Your task to perform on an android device: turn smart compose on in the gmail app Image 0: 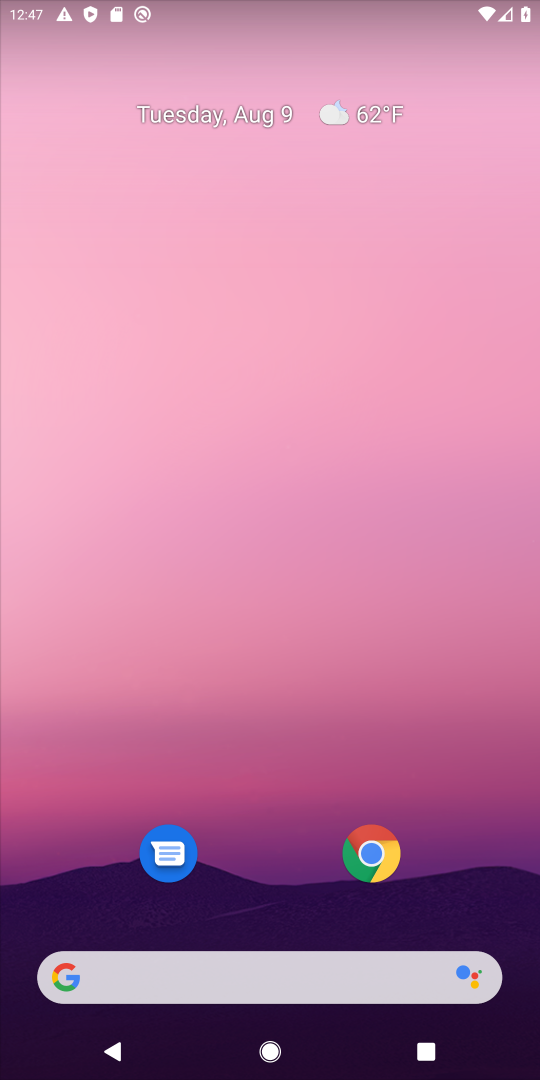
Step 0: drag from (219, 606) to (241, 51)
Your task to perform on an android device: turn smart compose on in the gmail app Image 1: 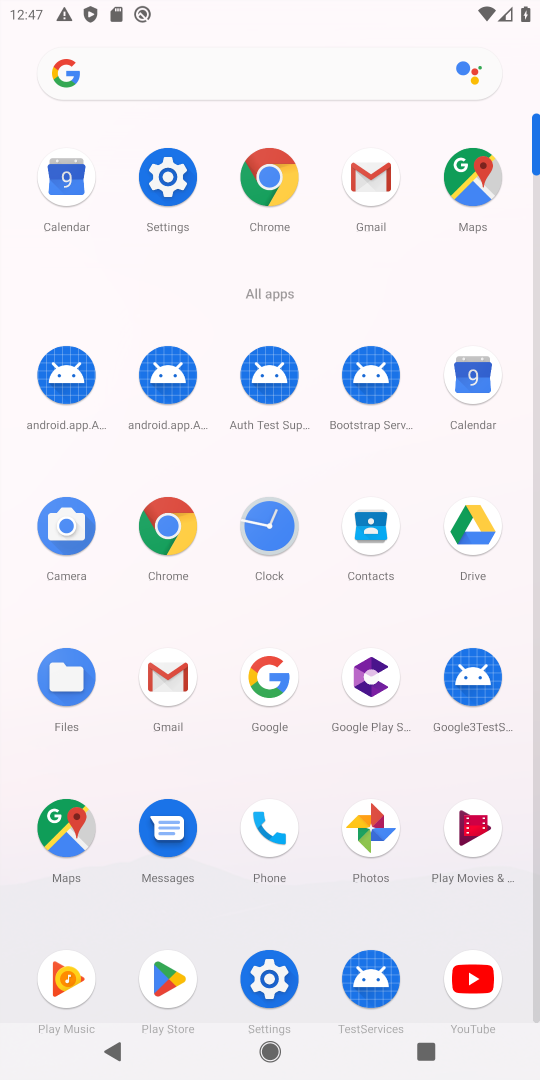
Step 1: click (382, 189)
Your task to perform on an android device: turn smart compose on in the gmail app Image 2: 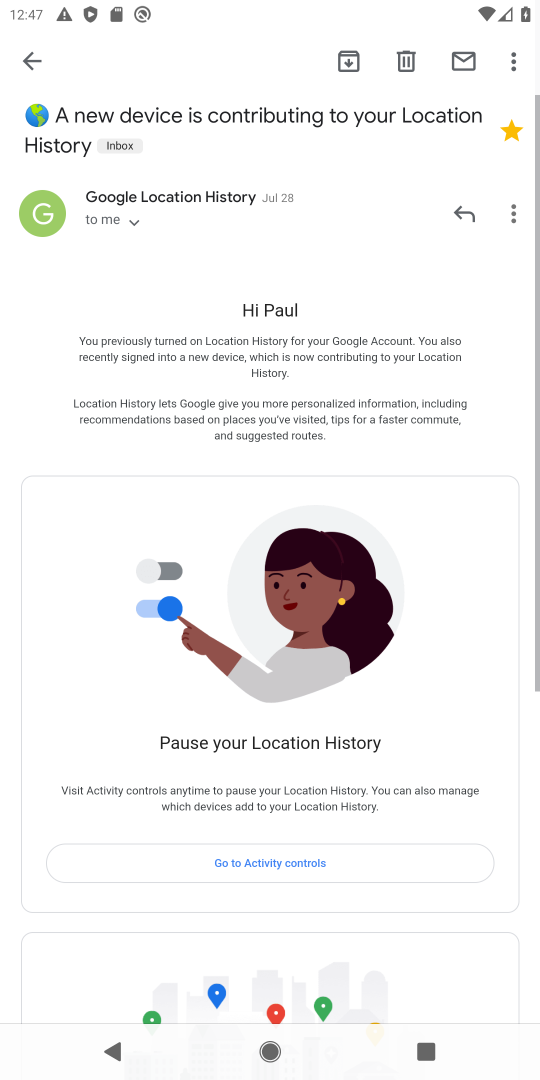
Step 2: click (32, 64)
Your task to perform on an android device: turn smart compose on in the gmail app Image 3: 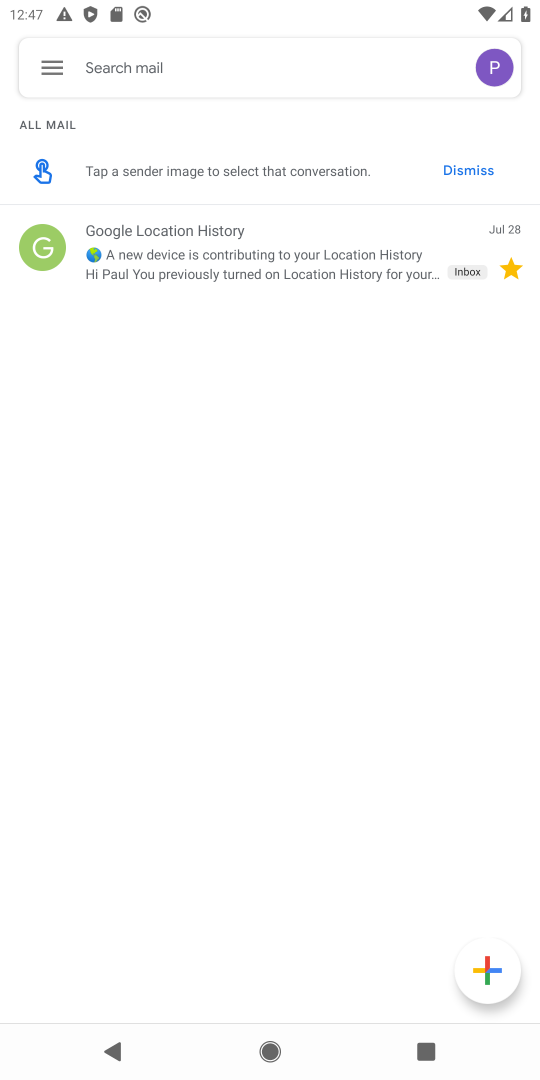
Step 3: click (32, 63)
Your task to perform on an android device: turn smart compose on in the gmail app Image 4: 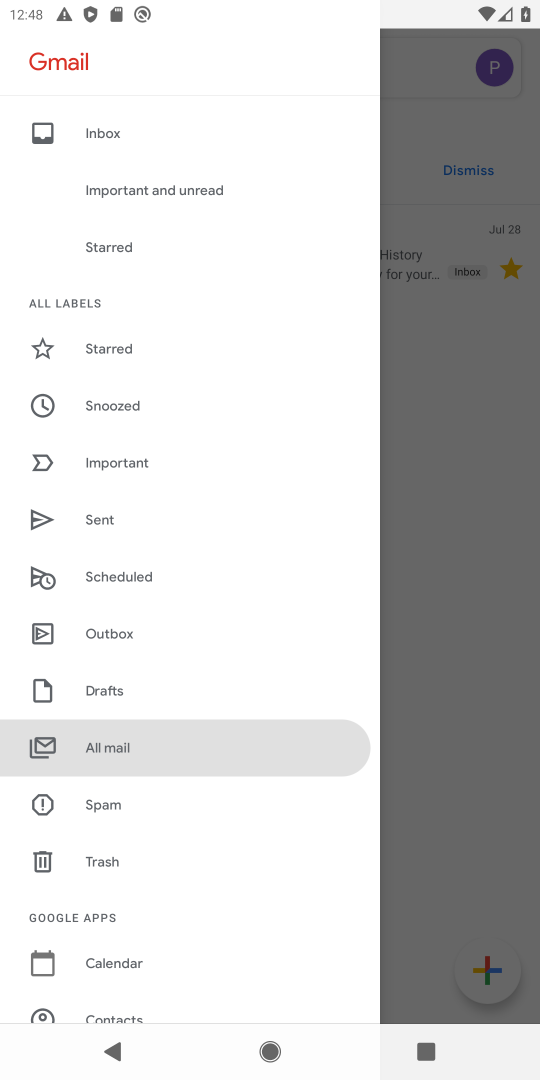
Step 4: drag from (169, 916) to (204, 383)
Your task to perform on an android device: turn smart compose on in the gmail app Image 5: 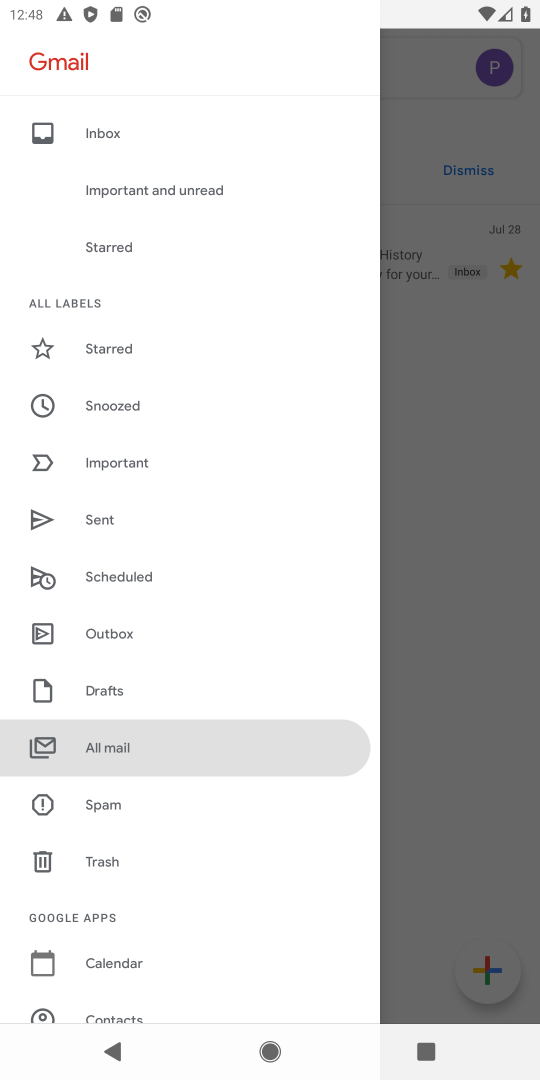
Step 5: drag from (230, 915) to (215, 294)
Your task to perform on an android device: turn smart compose on in the gmail app Image 6: 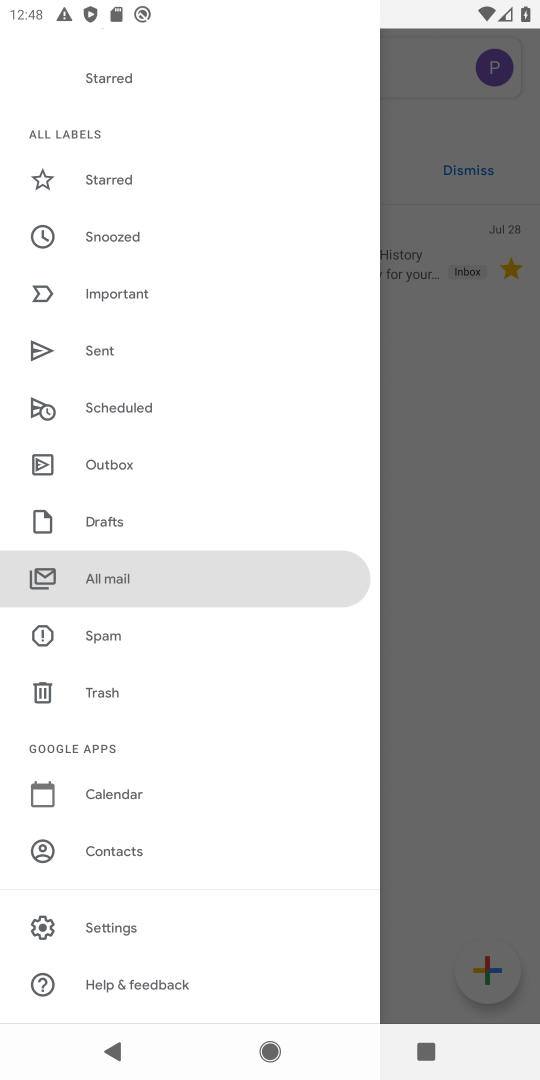
Step 6: click (122, 922)
Your task to perform on an android device: turn smart compose on in the gmail app Image 7: 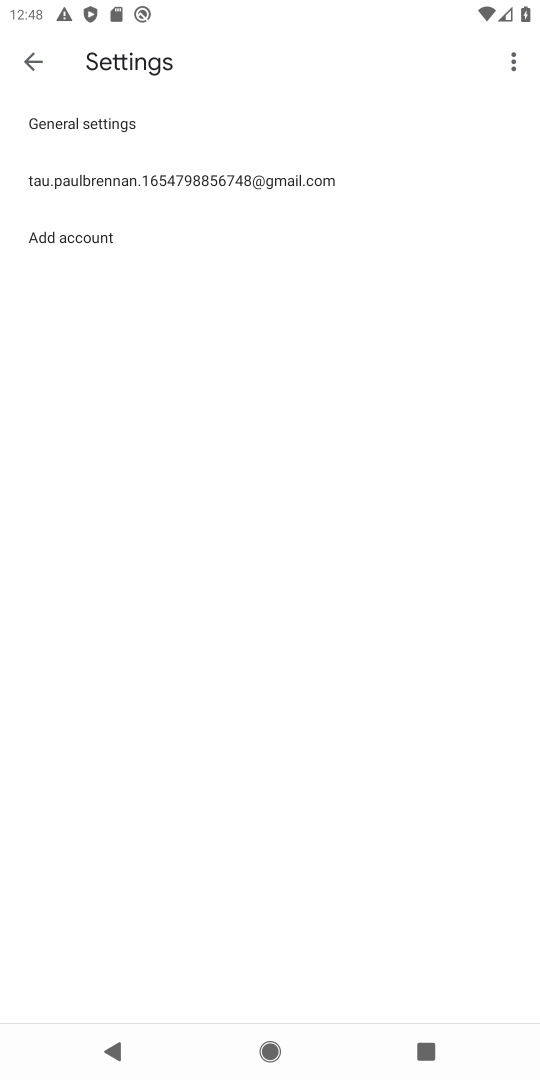
Step 7: click (99, 174)
Your task to perform on an android device: turn smart compose on in the gmail app Image 8: 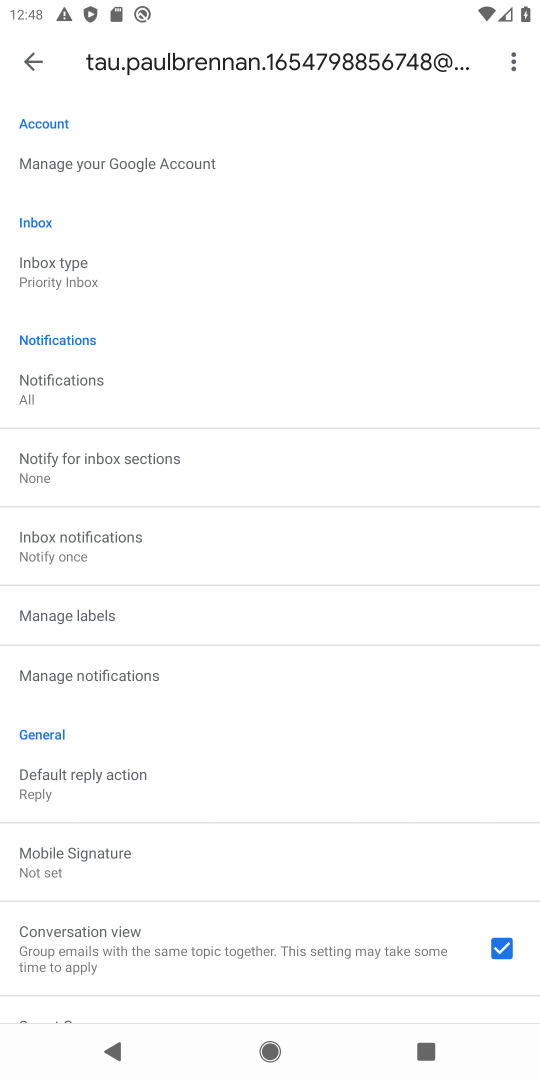
Step 8: task complete